Your task to perform on an android device: Clear the shopping cart on amazon. Search for "macbook pro 13 inch" on amazon, select the first entry, and add it to the cart. Image 0: 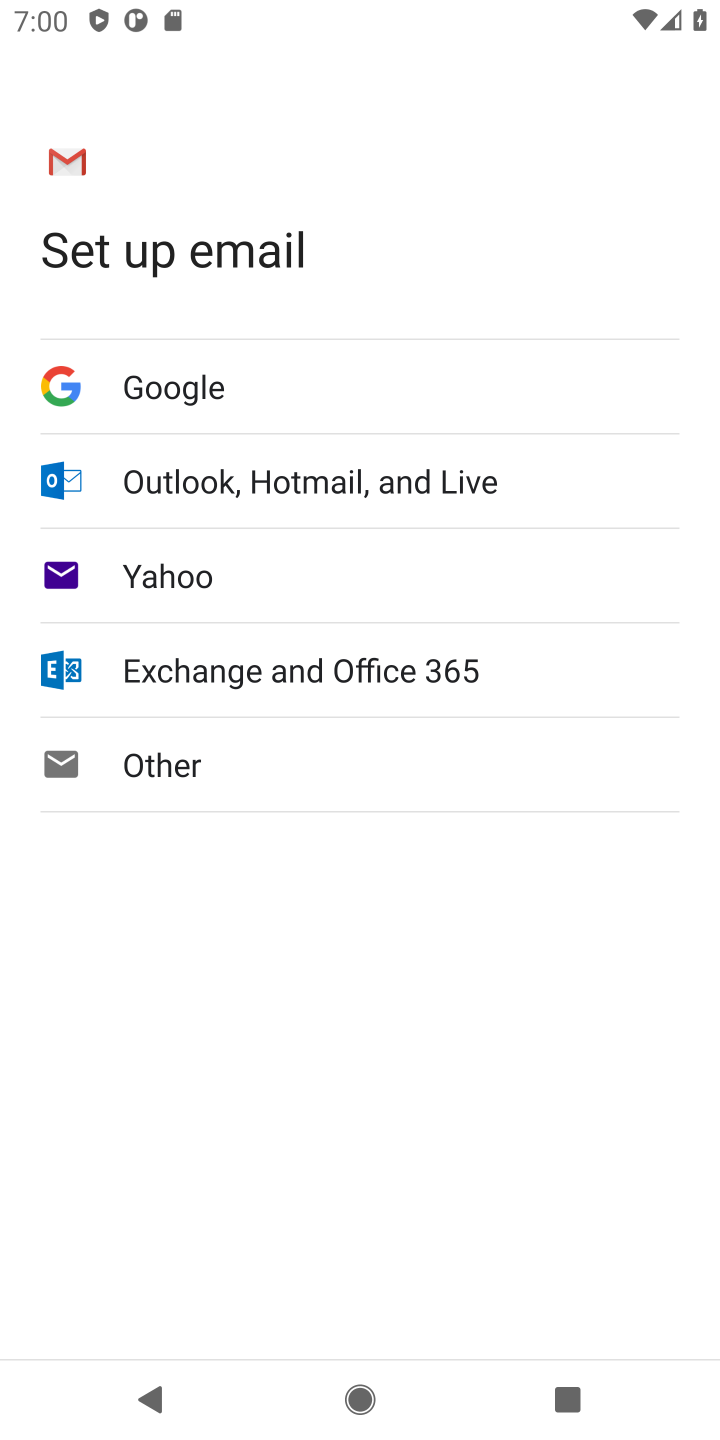
Step 0: press home button
Your task to perform on an android device: Clear the shopping cart on amazon. Search for "macbook pro 13 inch" on amazon, select the first entry, and add it to the cart. Image 1: 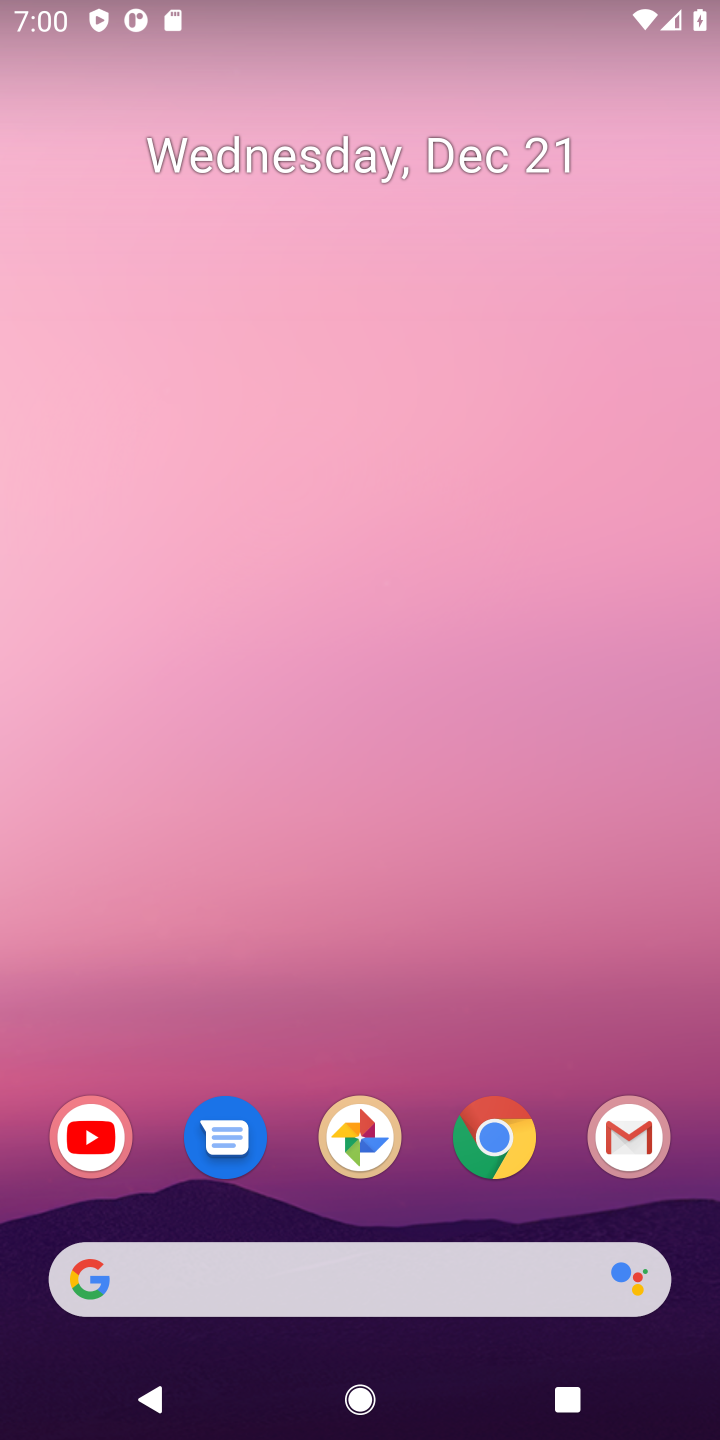
Step 1: click (507, 1148)
Your task to perform on an android device: Clear the shopping cart on amazon. Search for "macbook pro 13 inch" on amazon, select the first entry, and add it to the cart. Image 2: 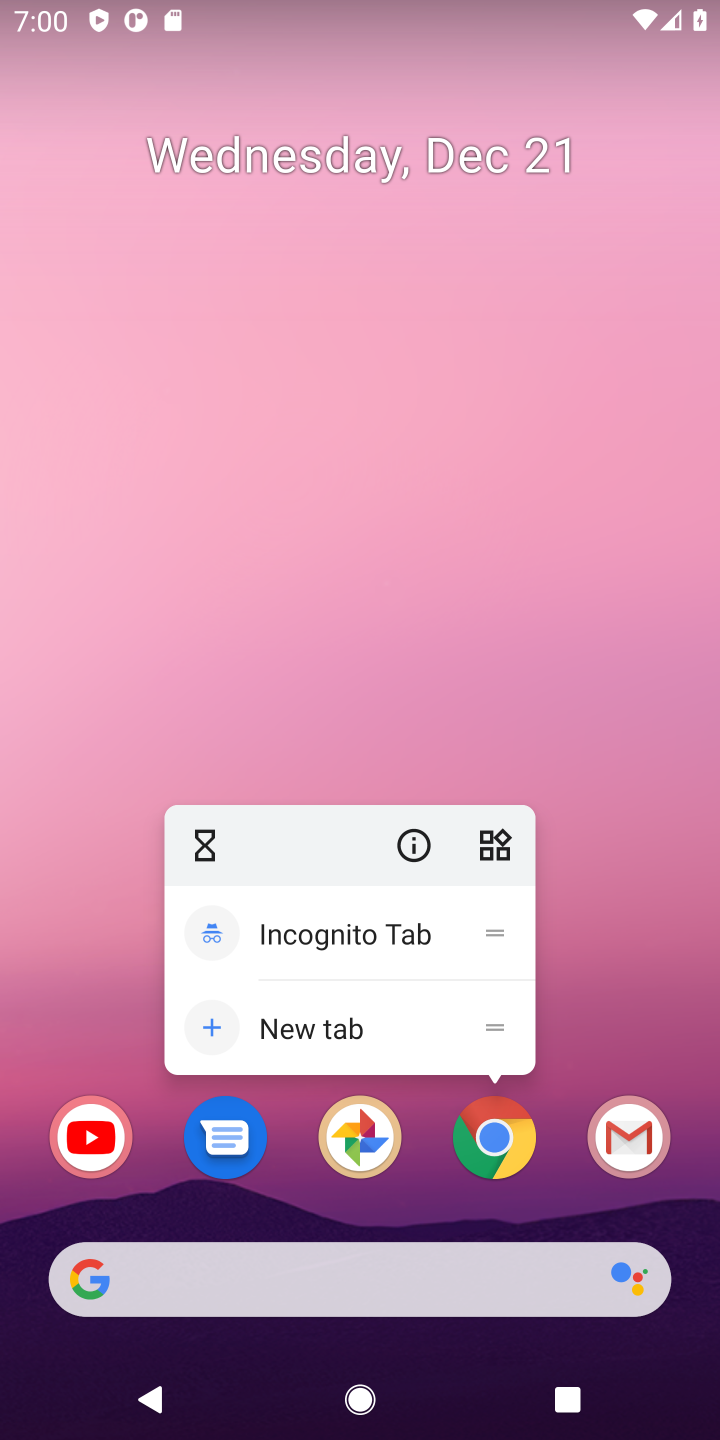
Step 2: click (507, 1148)
Your task to perform on an android device: Clear the shopping cart on amazon. Search for "macbook pro 13 inch" on amazon, select the first entry, and add it to the cart. Image 3: 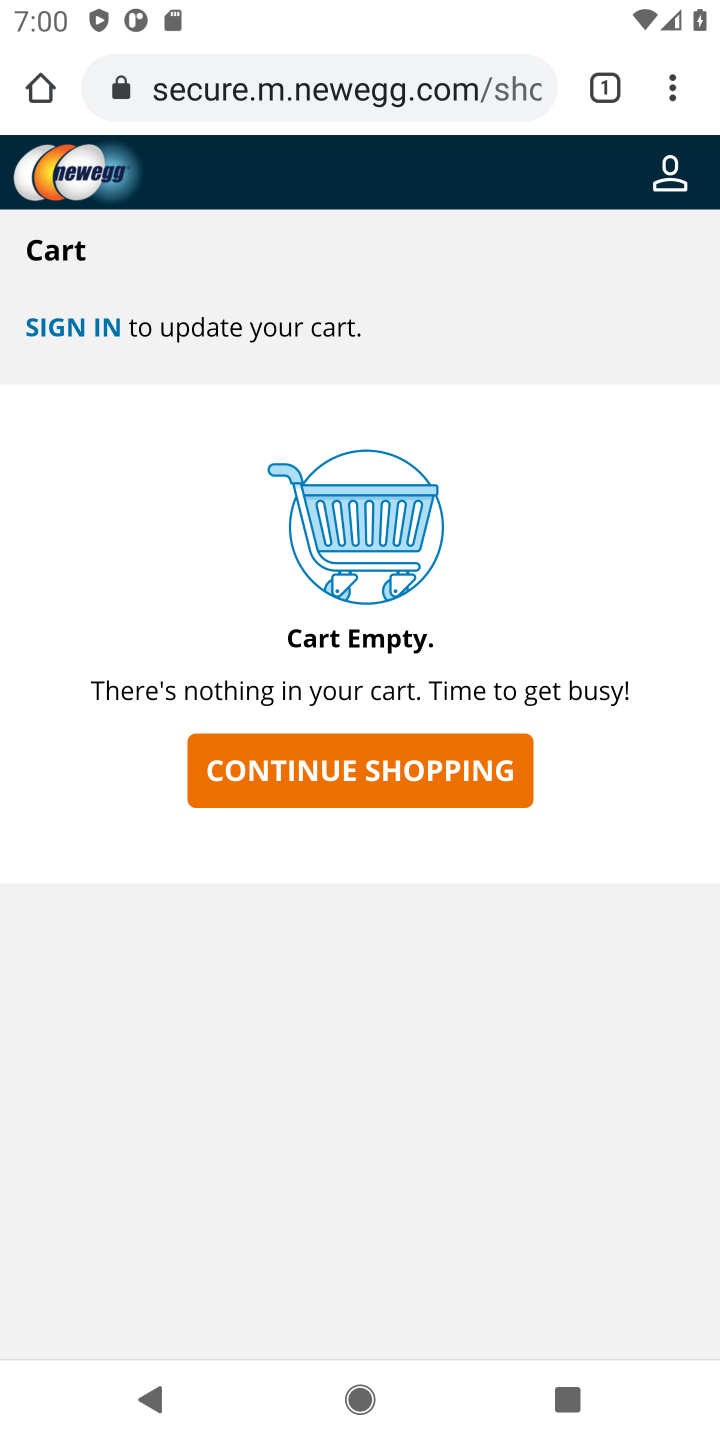
Step 3: click (280, 94)
Your task to perform on an android device: Clear the shopping cart on amazon. Search for "macbook pro 13 inch" on amazon, select the first entry, and add it to the cart. Image 4: 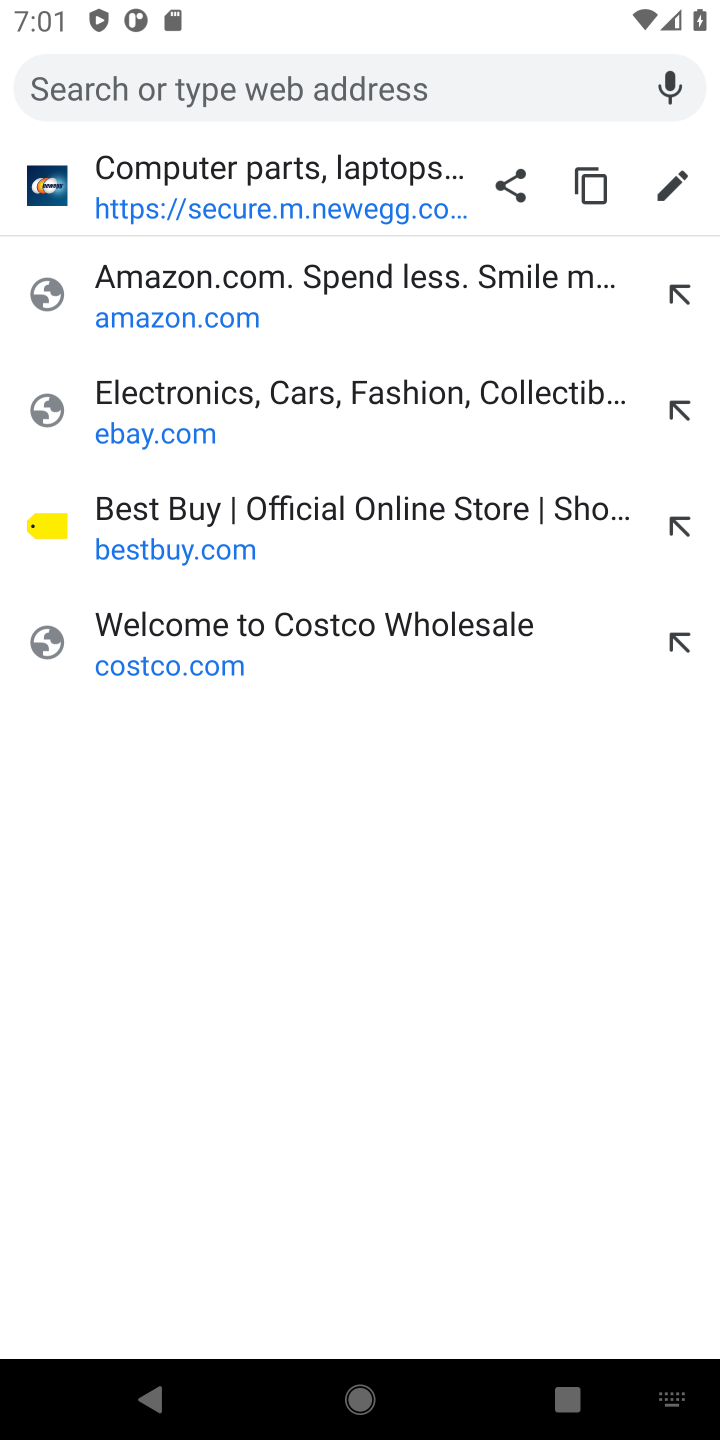
Step 4: click (168, 303)
Your task to perform on an android device: Clear the shopping cart on amazon. Search for "macbook pro 13 inch" on amazon, select the first entry, and add it to the cart. Image 5: 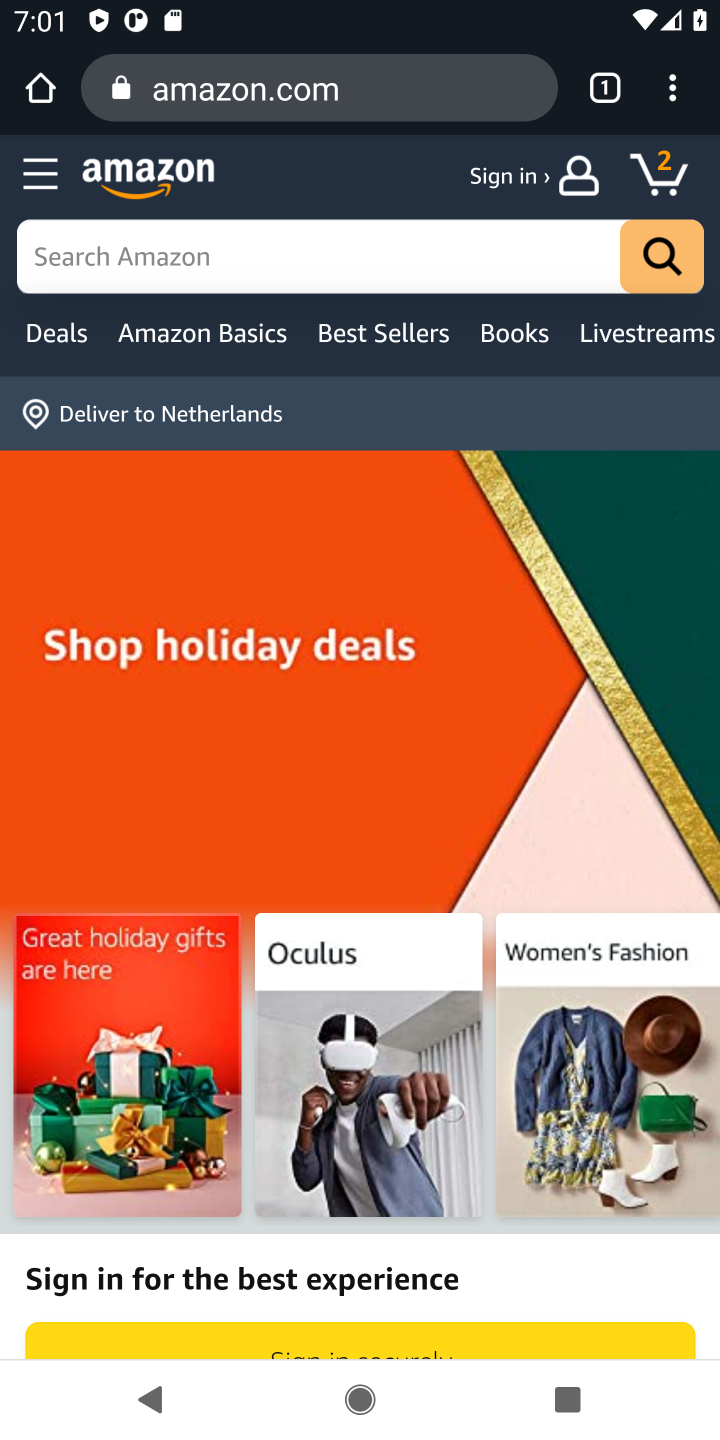
Step 5: click (656, 180)
Your task to perform on an android device: Clear the shopping cart on amazon. Search for "macbook pro 13 inch" on amazon, select the first entry, and add it to the cart. Image 6: 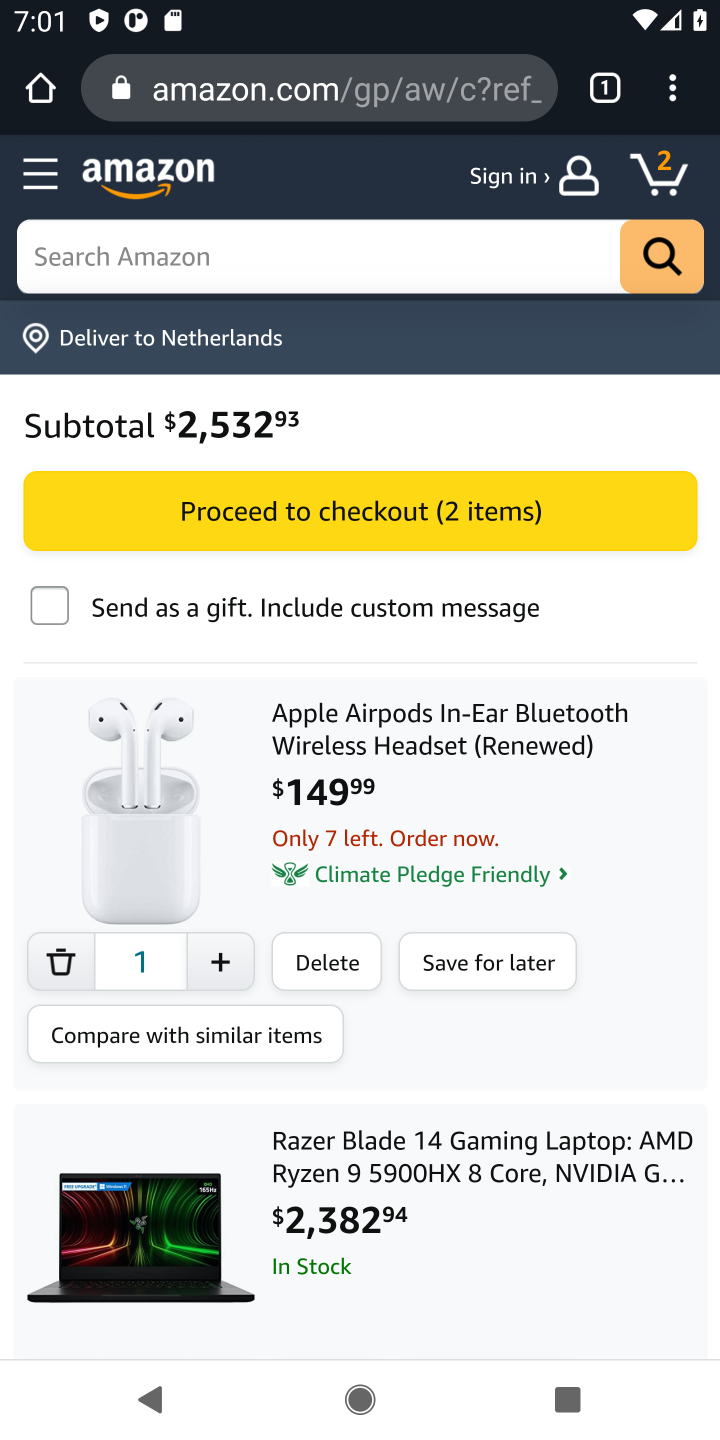
Step 6: click (328, 975)
Your task to perform on an android device: Clear the shopping cart on amazon. Search for "macbook pro 13 inch" on amazon, select the first entry, and add it to the cart. Image 7: 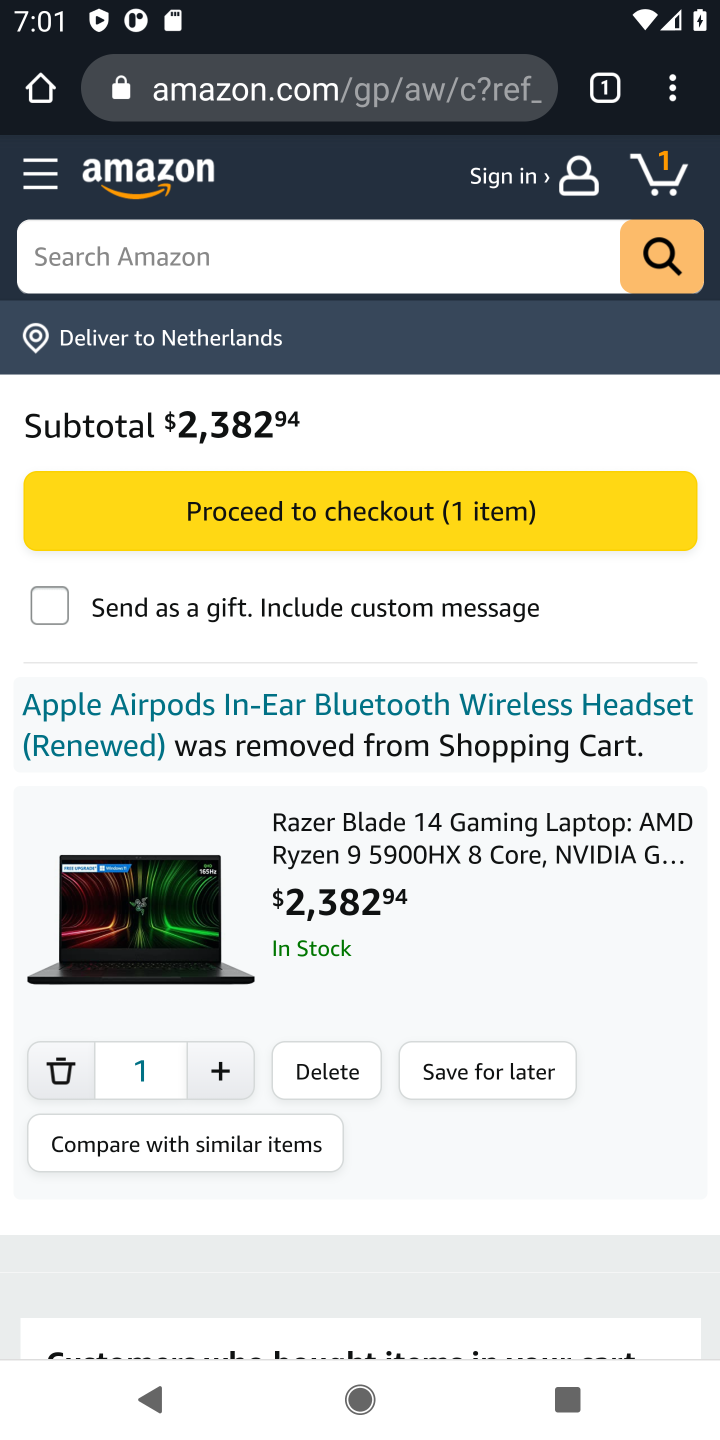
Step 7: click (297, 1071)
Your task to perform on an android device: Clear the shopping cart on amazon. Search for "macbook pro 13 inch" on amazon, select the first entry, and add it to the cart. Image 8: 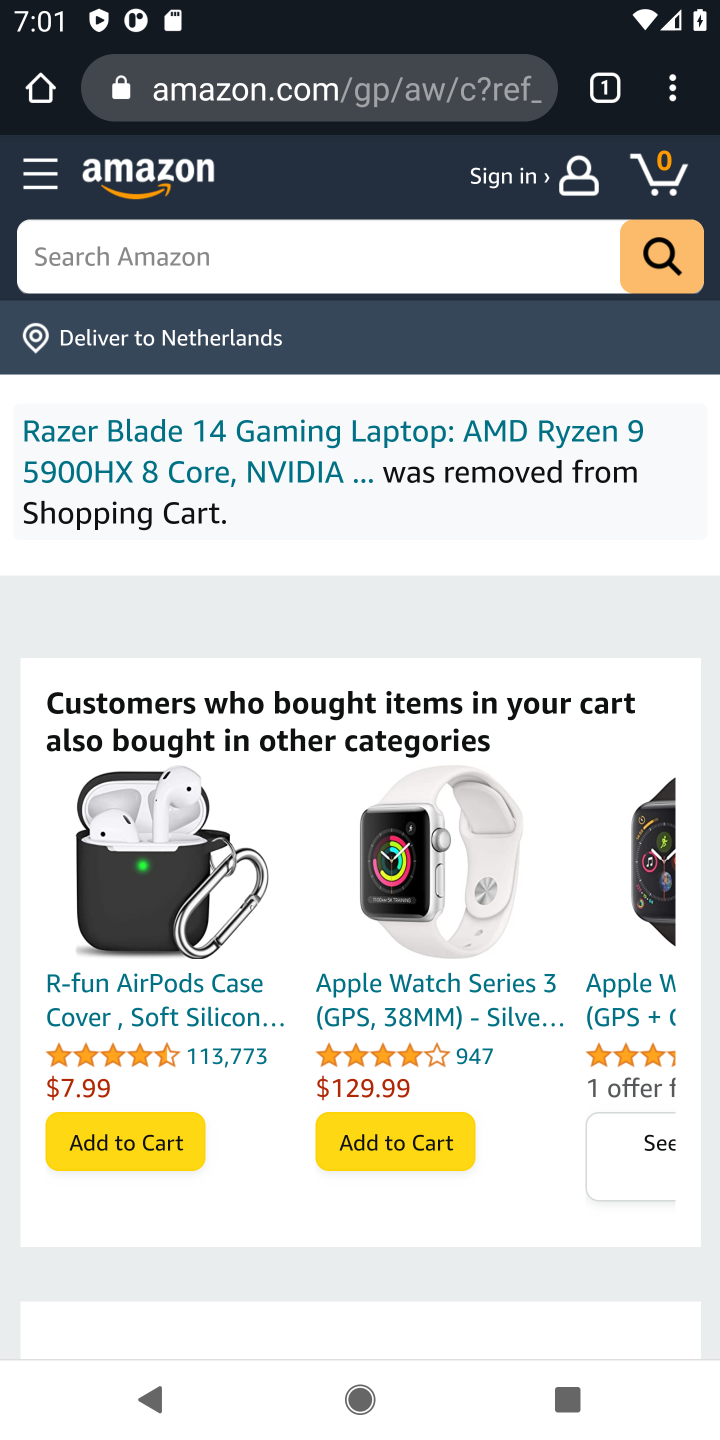
Step 8: click (111, 255)
Your task to perform on an android device: Clear the shopping cart on amazon. Search for "macbook pro 13 inch" on amazon, select the first entry, and add it to the cart. Image 9: 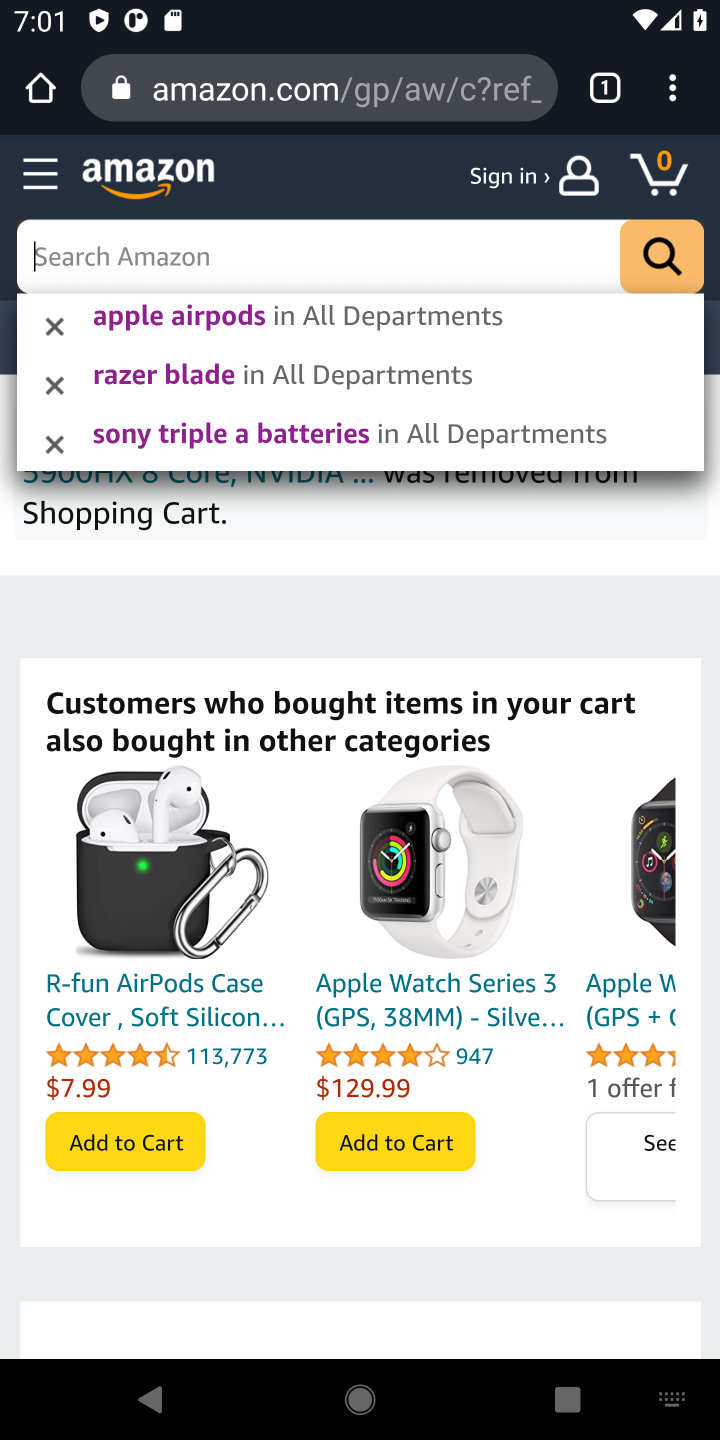
Step 9: type "macbook pro 13 inch"
Your task to perform on an android device: Clear the shopping cart on amazon. Search for "macbook pro 13 inch" on amazon, select the first entry, and add it to the cart. Image 10: 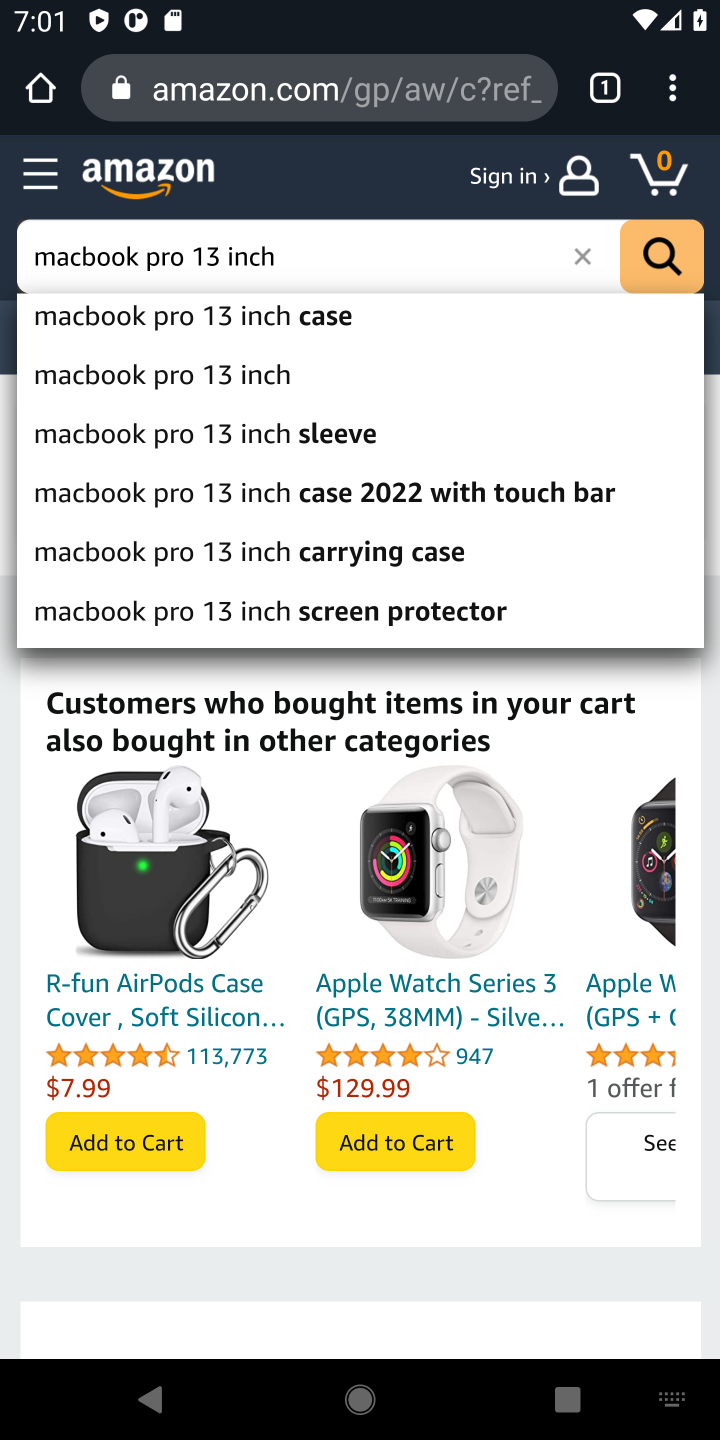
Step 10: click (227, 373)
Your task to perform on an android device: Clear the shopping cart on amazon. Search for "macbook pro 13 inch" on amazon, select the first entry, and add it to the cart. Image 11: 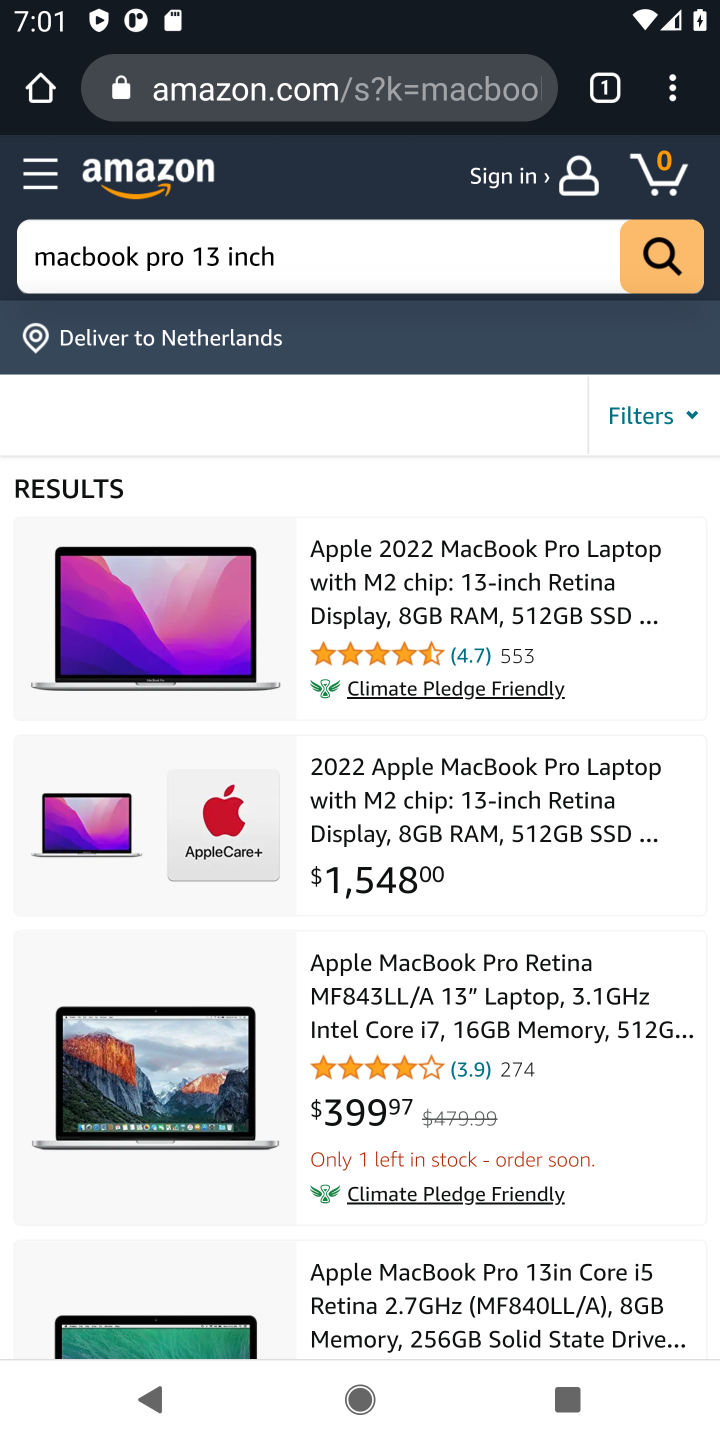
Step 11: click (456, 603)
Your task to perform on an android device: Clear the shopping cart on amazon. Search for "macbook pro 13 inch" on amazon, select the first entry, and add it to the cart. Image 12: 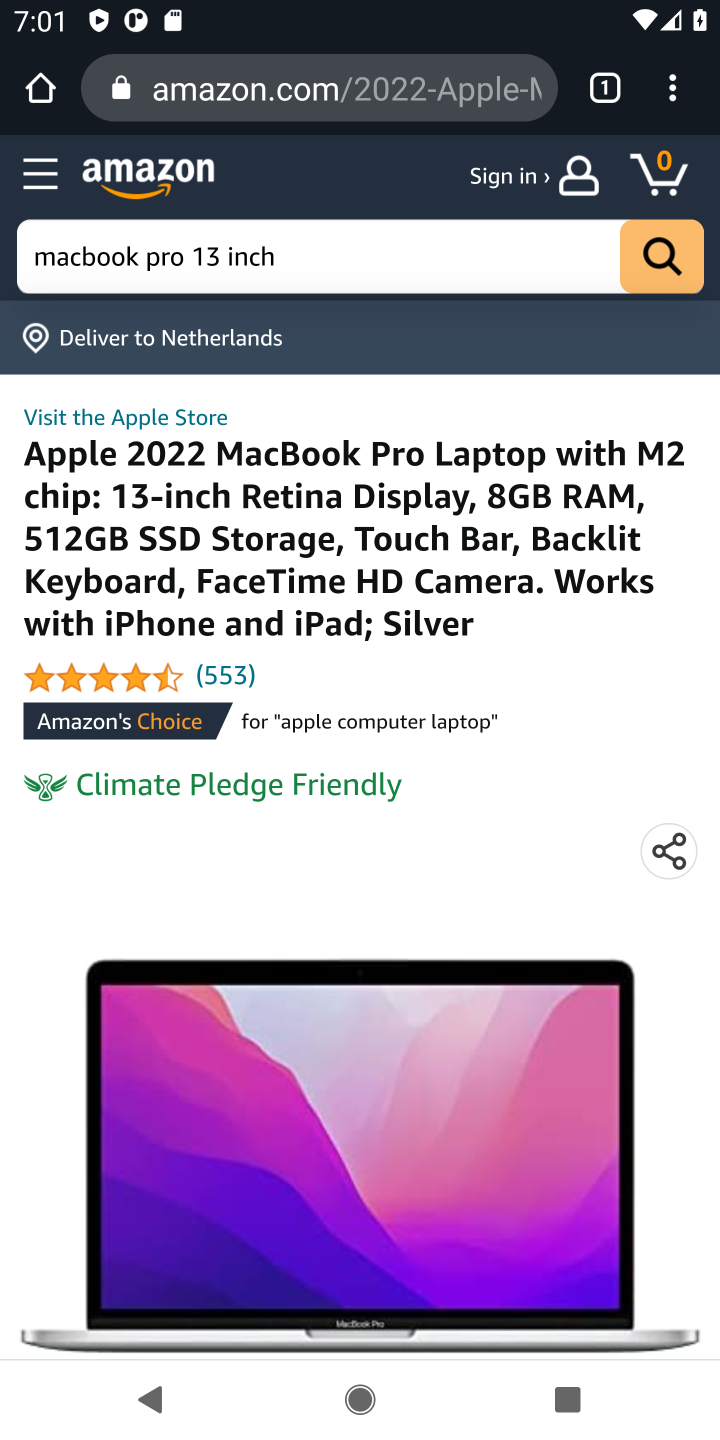
Step 12: task complete